Your task to perform on an android device: Open Chrome and go to the settings page Image 0: 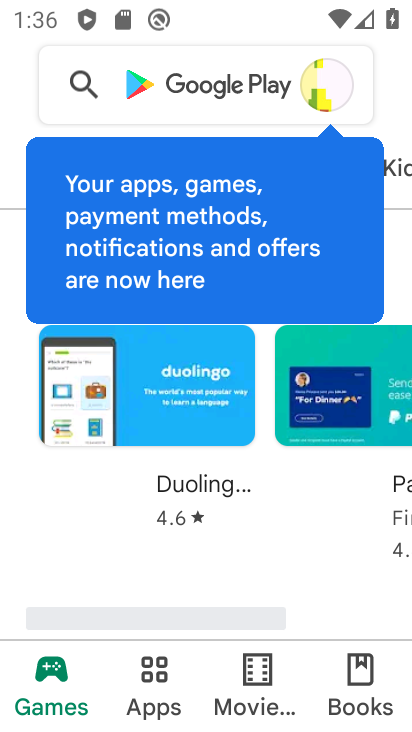
Step 0: press home button
Your task to perform on an android device: Open Chrome and go to the settings page Image 1: 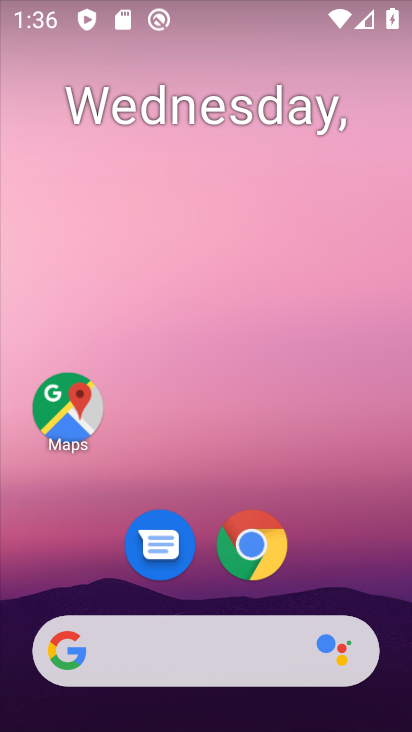
Step 1: click (260, 523)
Your task to perform on an android device: Open Chrome and go to the settings page Image 2: 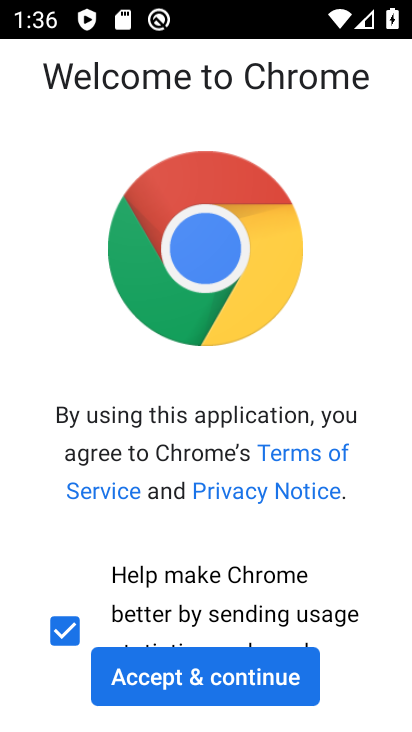
Step 2: click (229, 671)
Your task to perform on an android device: Open Chrome and go to the settings page Image 3: 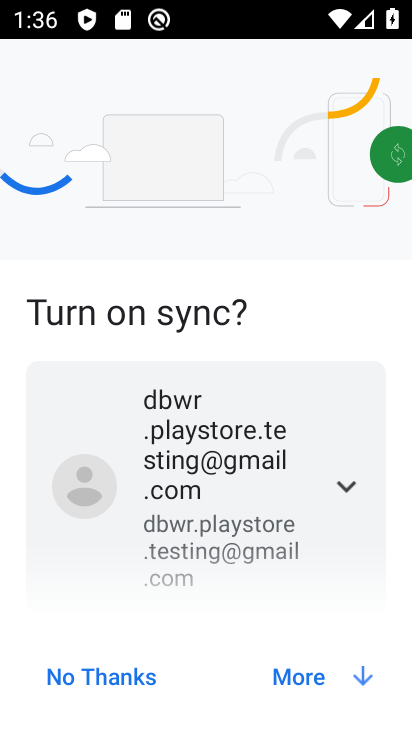
Step 3: click (347, 681)
Your task to perform on an android device: Open Chrome and go to the settings page Image 4: 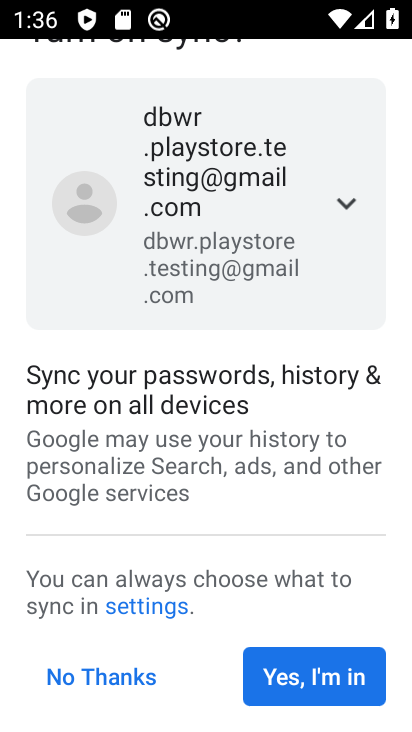
Step 4: click (336, 671)
Your task to perform on an android device: Open Chrome and go to the settings page Image 5: 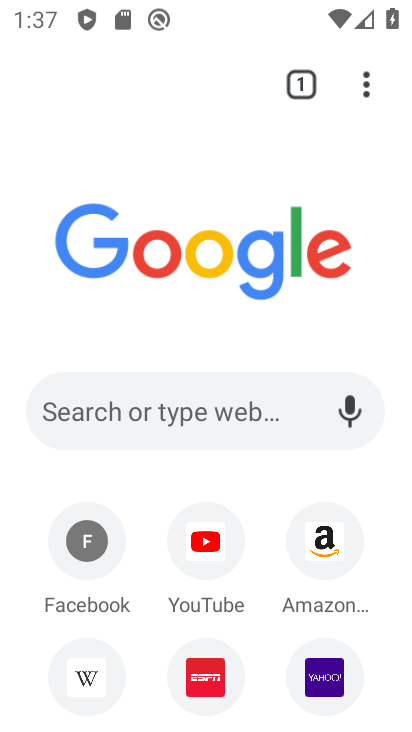
Step 5: click (377, 79)
Your task to perform on an android device: Open Chrome and go to the settings page Image 6: 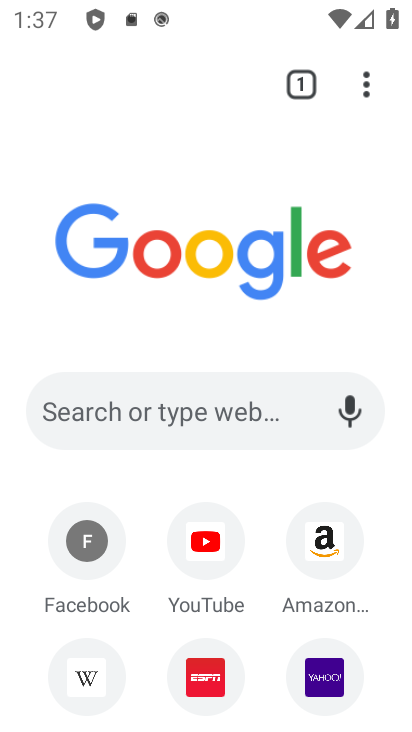
Step 6: click (361, 69)
Your task to perform on an android device: Open Chrome and go to the settings page Image 7: 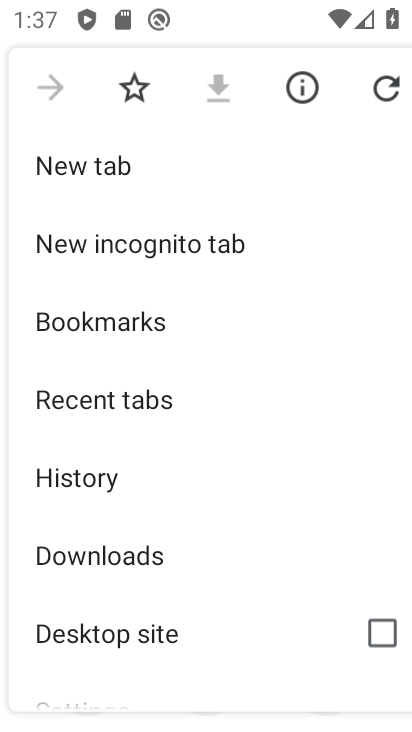
Step 7: drag from (194, 593) to (222, 186)
Your task to perform on an android device: Open Chrome and go to the settings page Image 8: 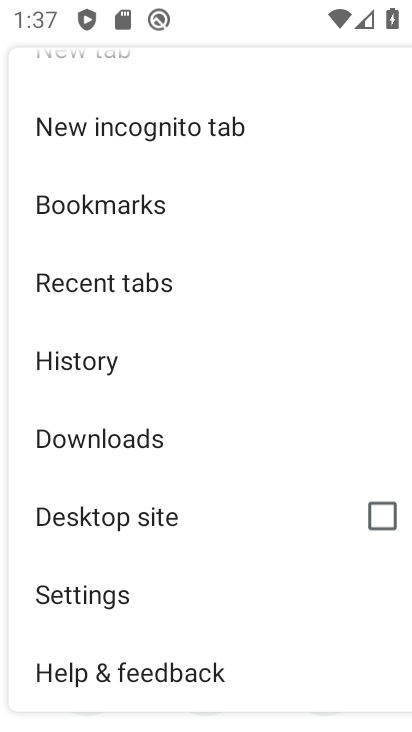
Step 8: click (155, 575)
Your task to perform on an android device: Open Chrome and go to the settings page Image 9: 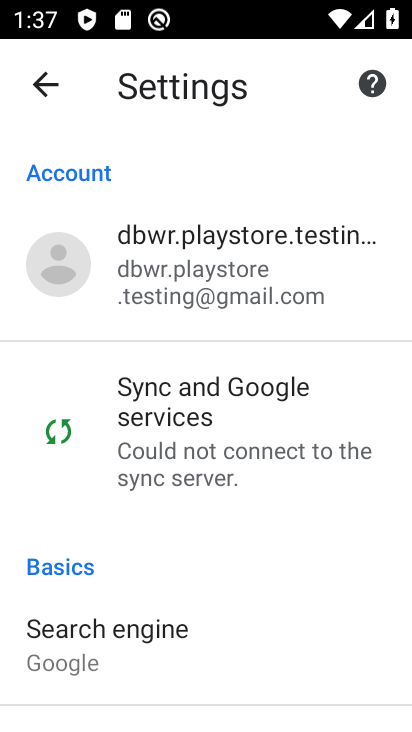
Step 9: task complete